Your task to perform on an android device: Open the phone app and click the voicemail tab. Image 0: 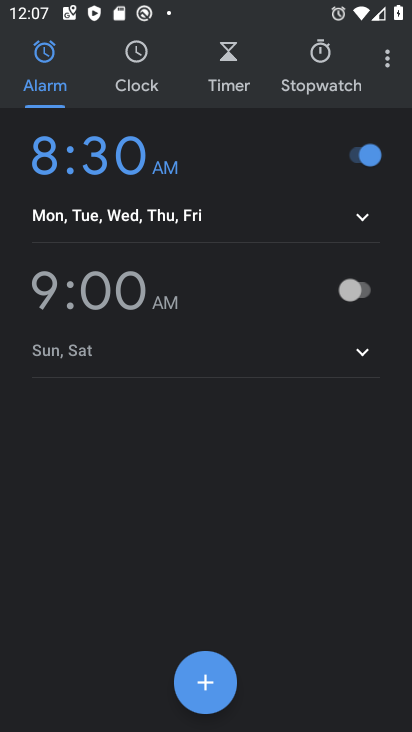
Step 0: press home button
Your task to perform on an android device: Open the phone app and click the voicemail tab. Image 1: 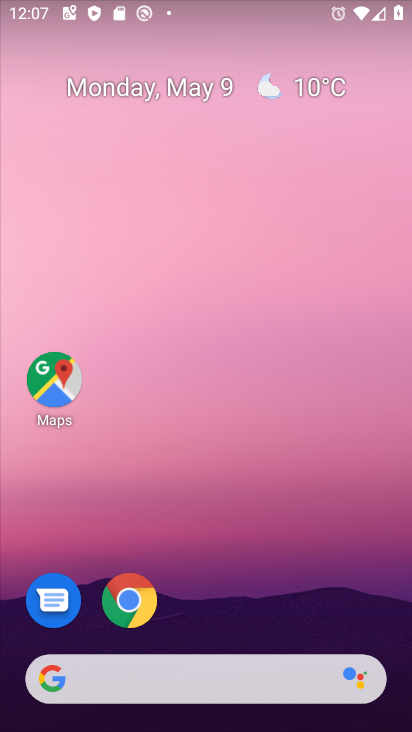
Step 1: drag from (167, 646) to (188, 191)
Your task to perform on an android device: Open the phone app and click the voicemail tab. Image 2: 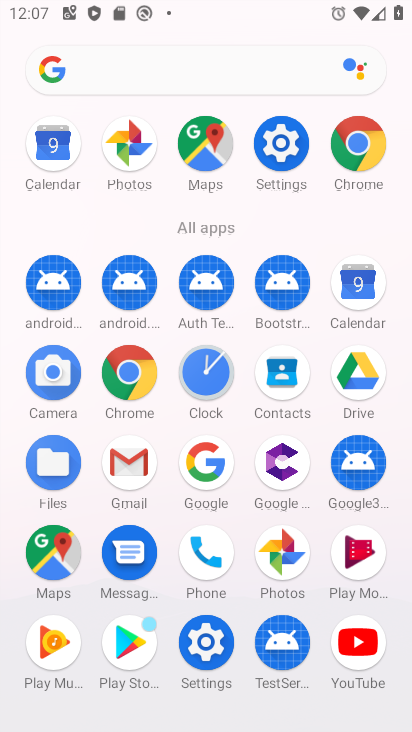
Step 2: click (210, 554)
Your task to perform on an android device: Open the phone app and click the voicemail tab. Image 3: 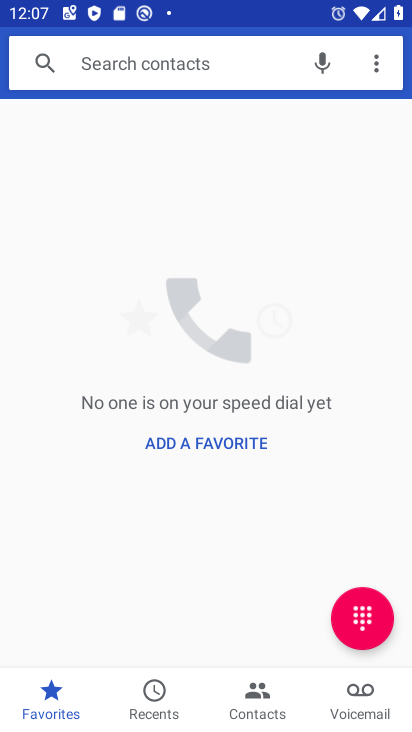
Step 3: click (378, 713)
Your task to perform on an android device: Open the phone app and click the voicemail tab. Image 4: 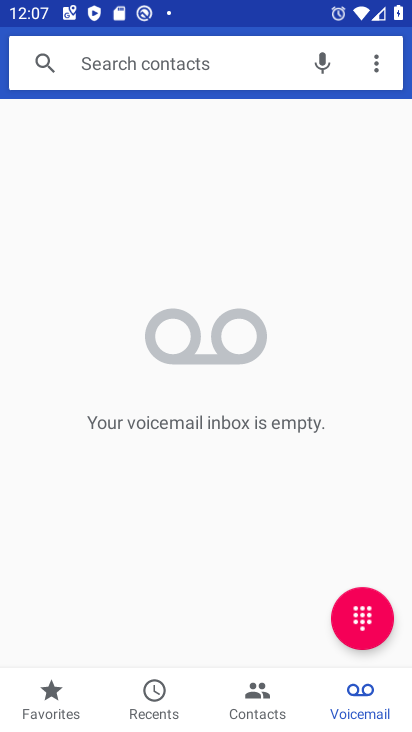
Step 4: task complete